Your task to perform on an android device: move an email to a new category in the gmail app Image 0: 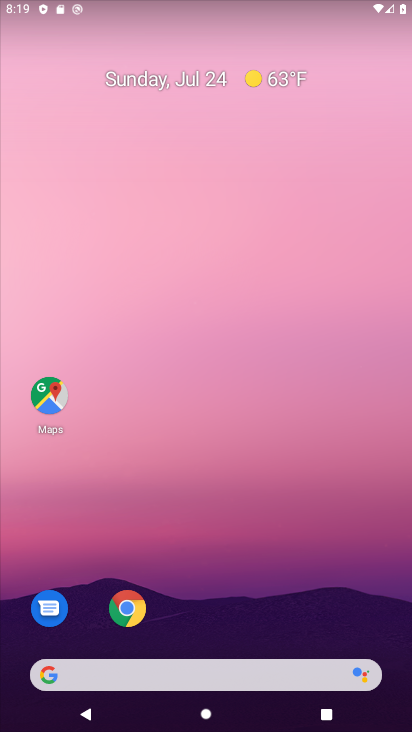
Step 0: drag from (222, 619) to (222, 2)
Your task to perform on an android device: move an email to a new category in the gmail app Image 1: 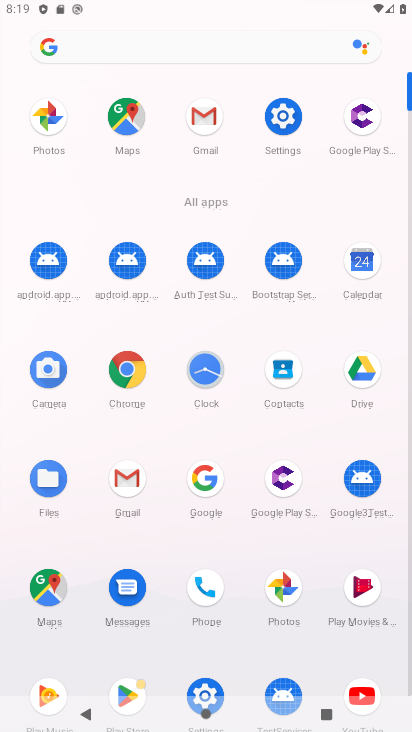
Step 1: click (128, 473)
Your task to perform on an android device: move an email to a new category in the gmail app Image 2: 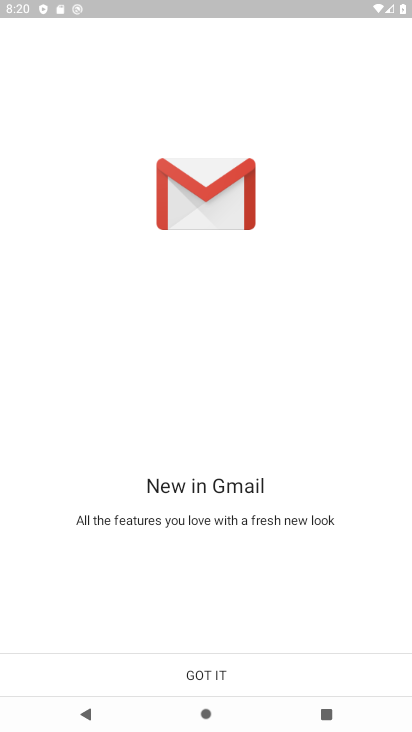
Step 2: click (213, 668)
Your task to perform on an android device: move an email to a new category in the gmail app Image 3: 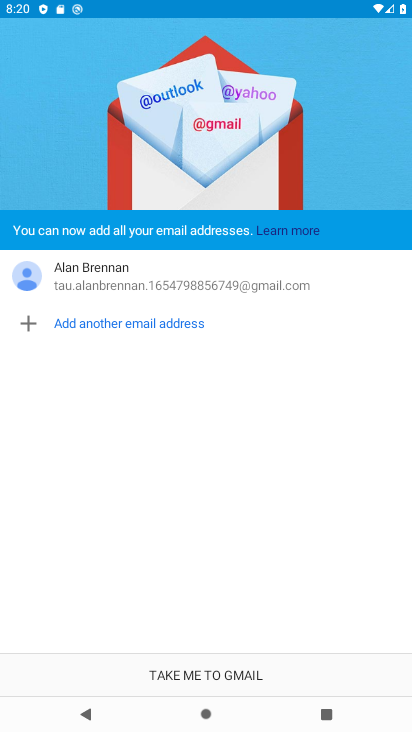
Step 3: click (199, 669)
Your task to perform on an android device: move an email to a new category in the gmail app Image 4: 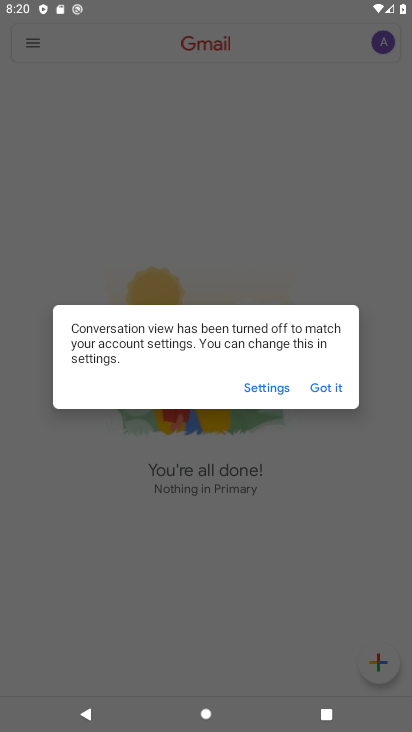
Step 4: click (328, 382)
Your task to perform on an android device: move an email to a new category in the gmail app Image 5: 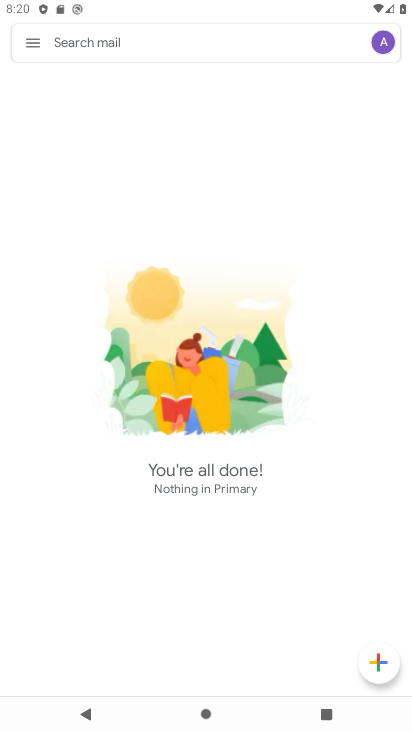
Step 5: click (38, 42)
Your task to perform on an android device: move an email to a new category in the gmail app Image 6: 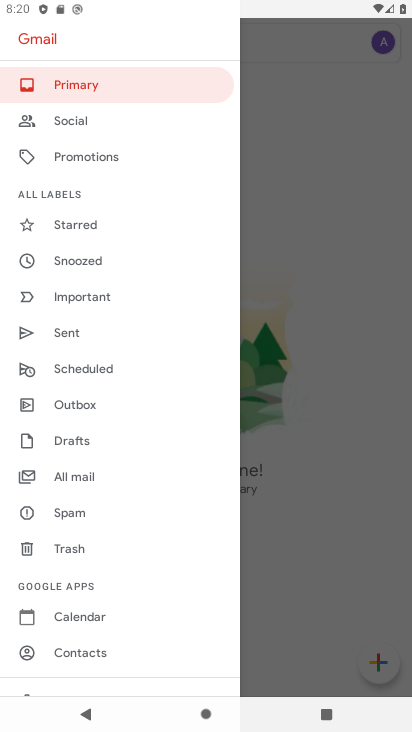
Step 6: click (88, 471)
Your task to perform on an android device: move an email to a new category in the gmail app Image 7: 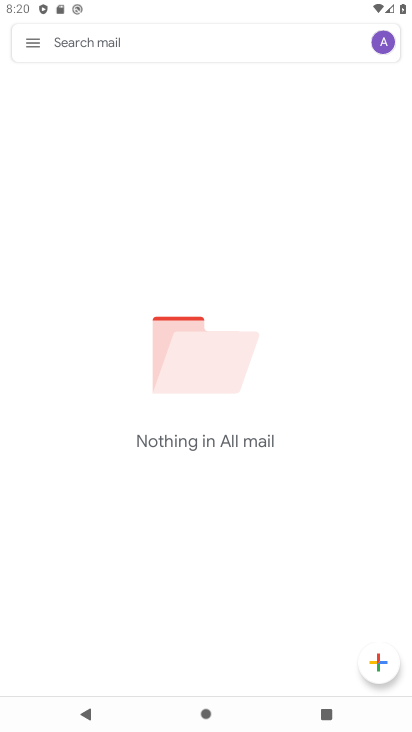
Step 7: task complete